Your task to perform on an android device: Open calendar and show me the third week of next month Image 0: 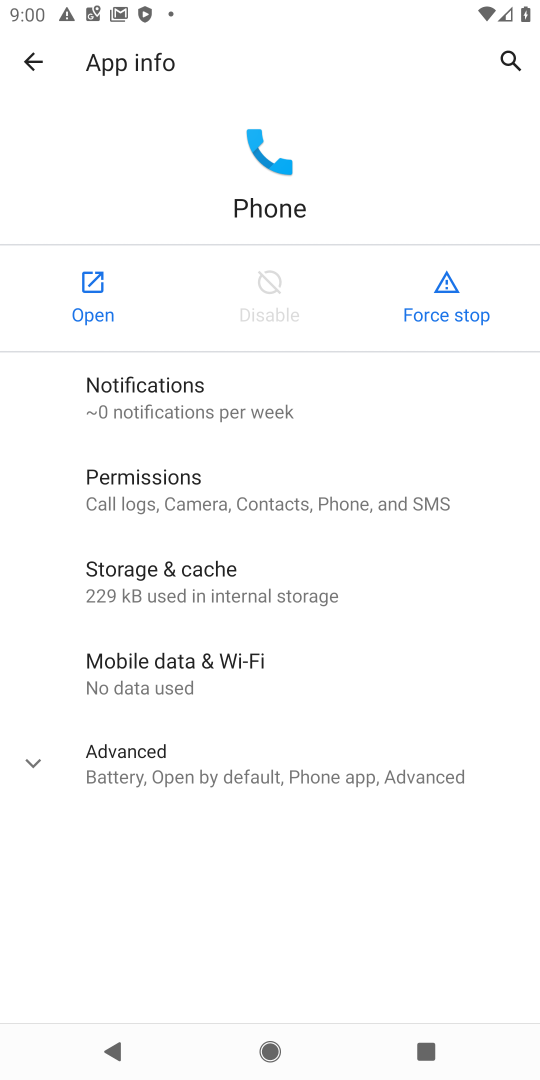
Step 0: press home button
Your task to perform on an android device: Open calendar and show me the third week of next month Image 1: 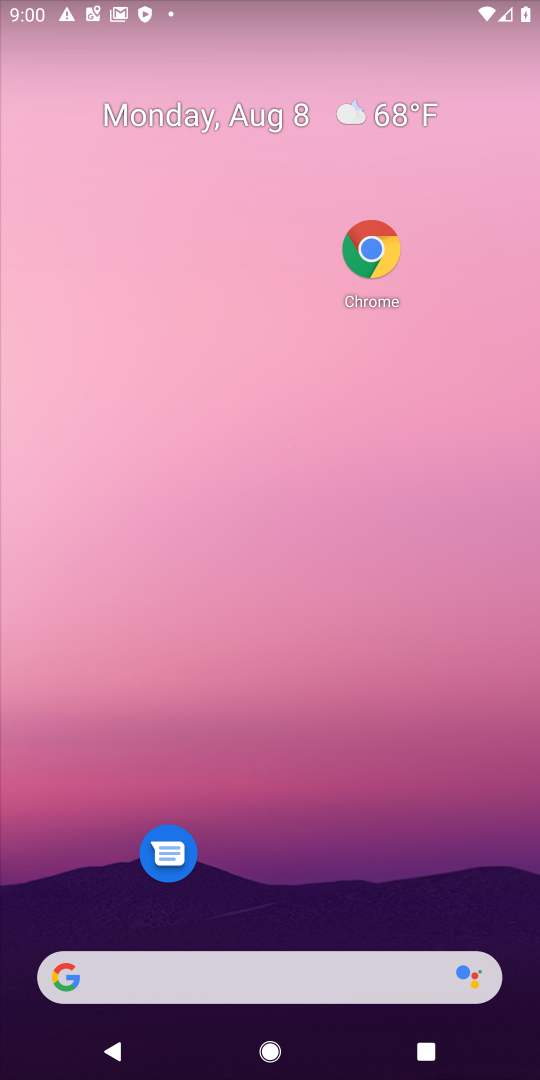
Step 1: drag from (280, 881) to (368, 118)
Your task to perform on an android device: Open calendar and show me the third week of next month Image 2: 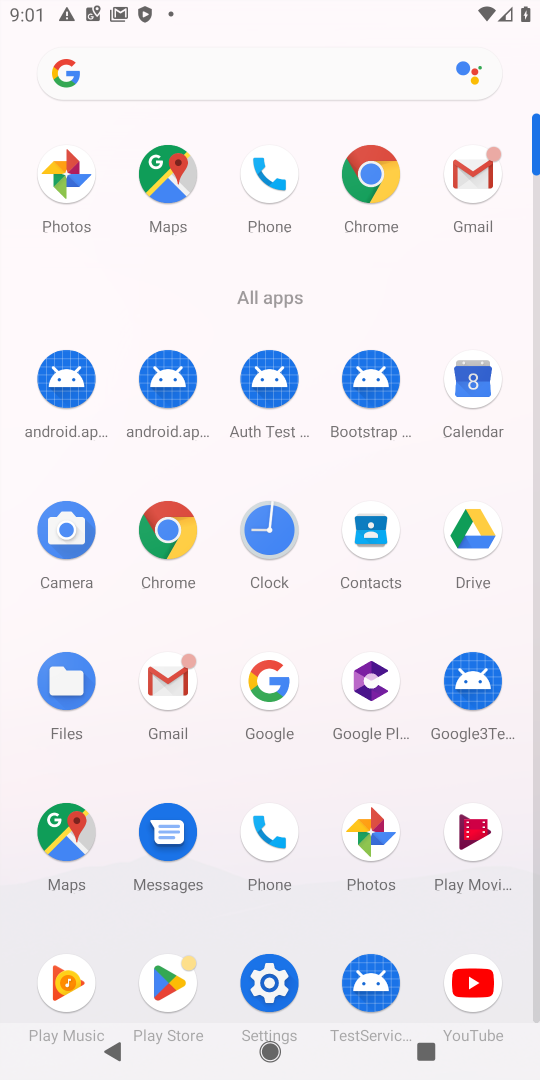
Step 2: click (458, 392)
Your task to perform on an android device: Open calendar and show me the third week of next month Image 3: 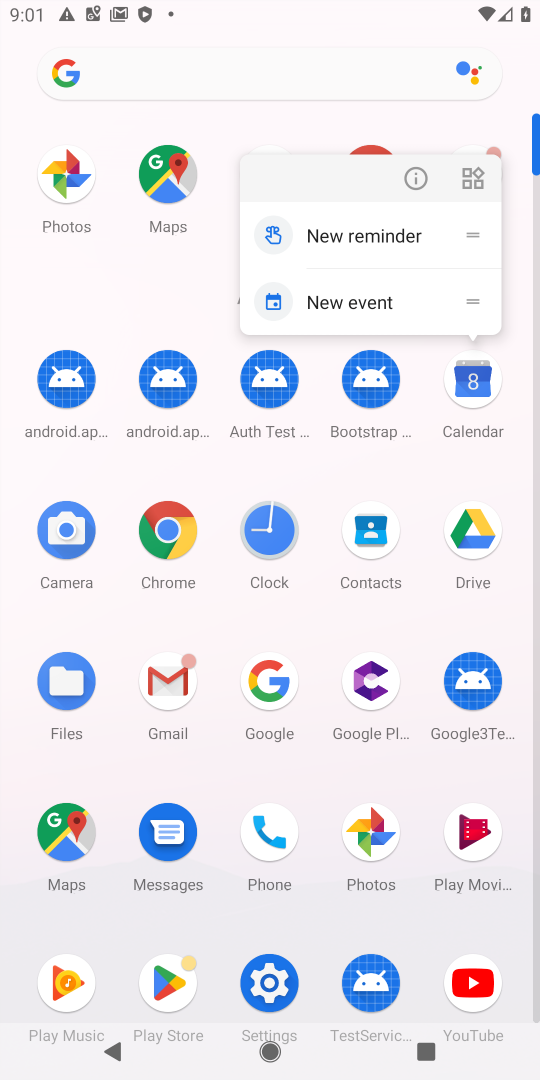
Step 3: click (458, 387)
Your task to perform on an android device: Open calendar and show me the third week of next month Image 4: 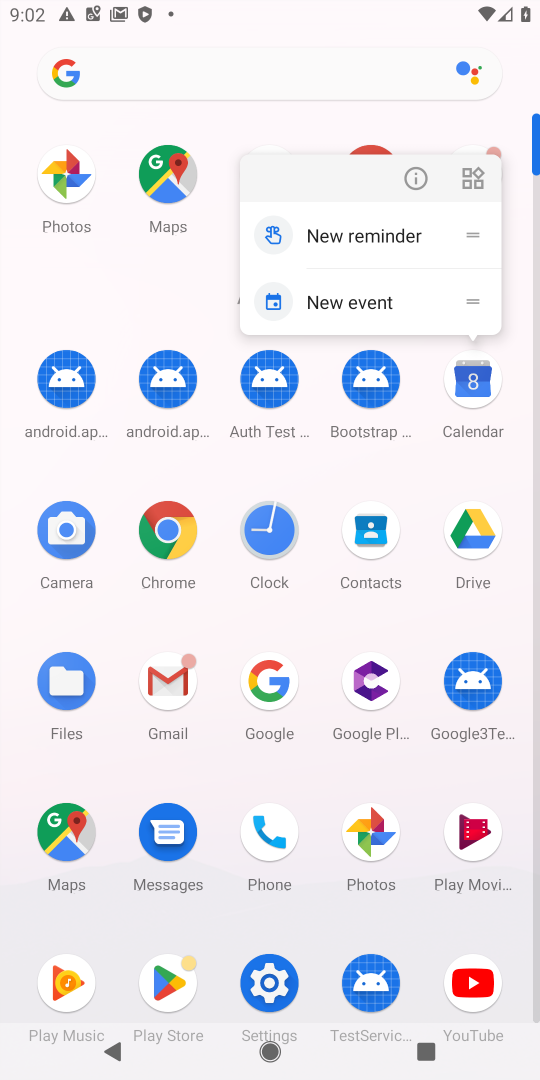
Step 4: click (458, 387)
Your task to perform on an android device: Open calendar and show me the third week of next month Image 5: 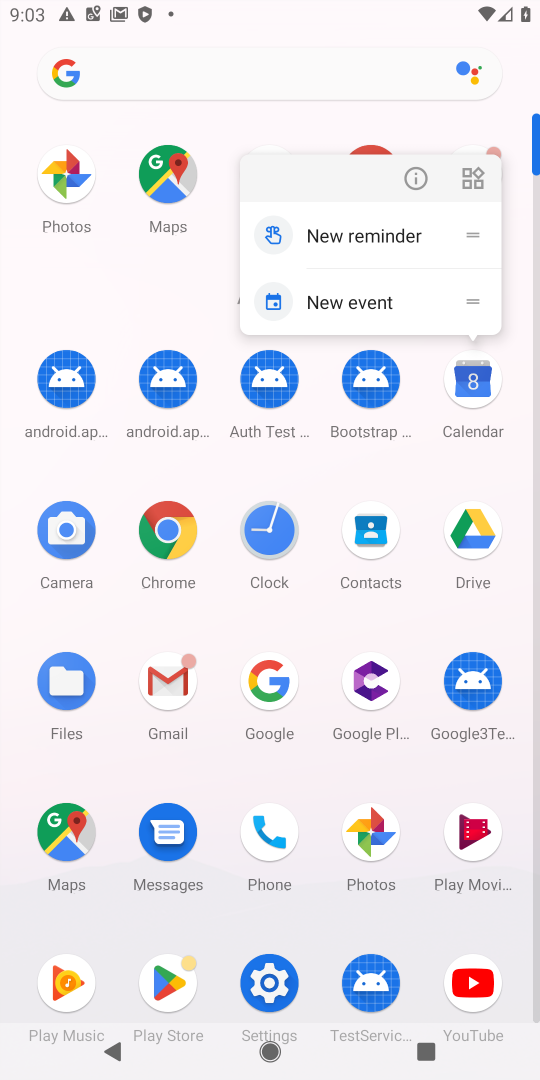
Step 5: click (483, 372)
Your task to perform on an android device: Open calendar and show me the third week of next month Image 6: 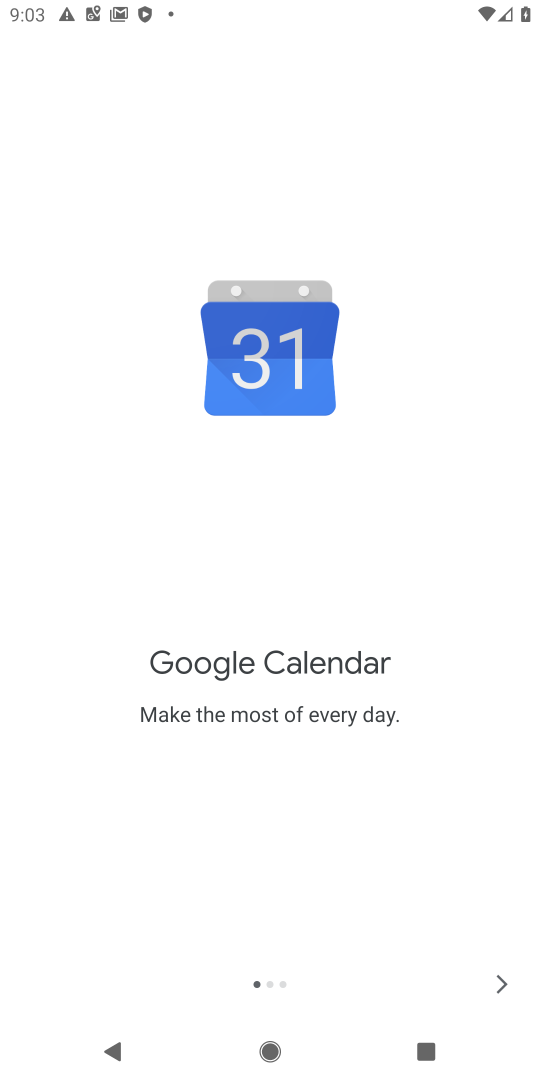
Step 6: click (505, 987)
Your task to perform on an android device: Open calendar and show me the third week of next month Image 7: 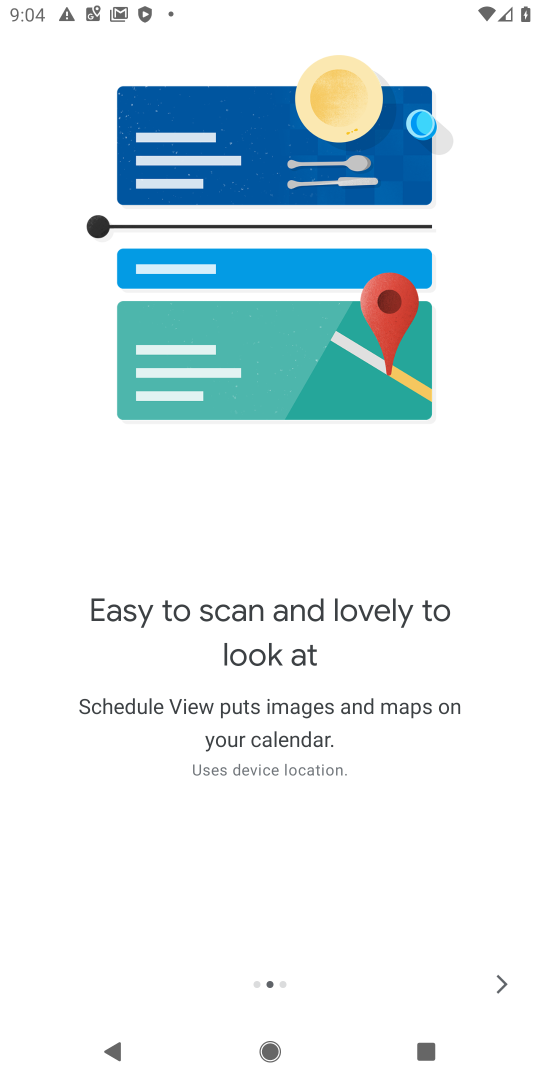
Step 7: click (514, 989)
Your task to perform on an android device: Open calendar and show me the third week of next month Image 8: 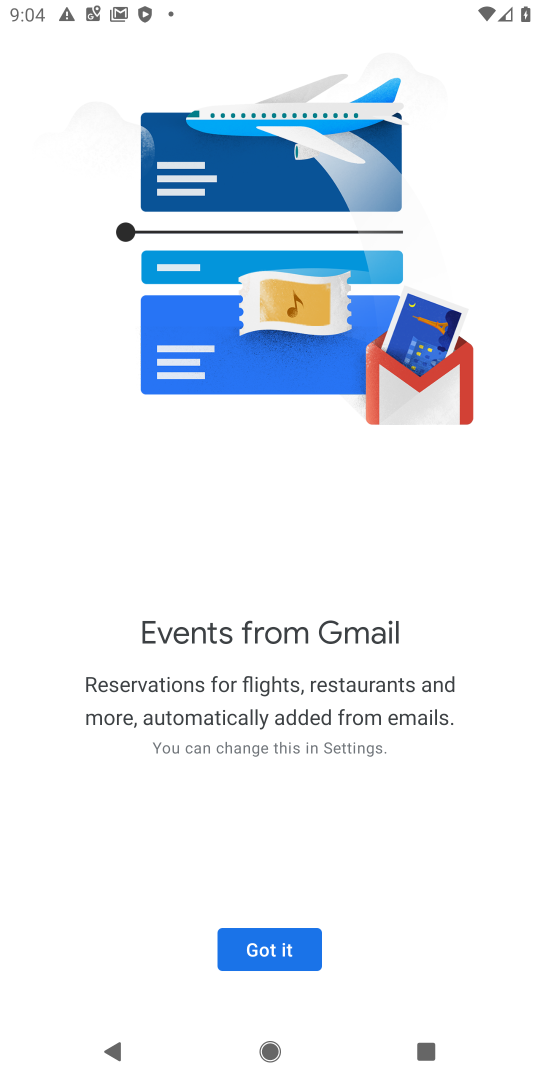
Step 8: click (260, 961)
Your task to perform on an android device: Open calendar and show me the third week of next month Image 9: 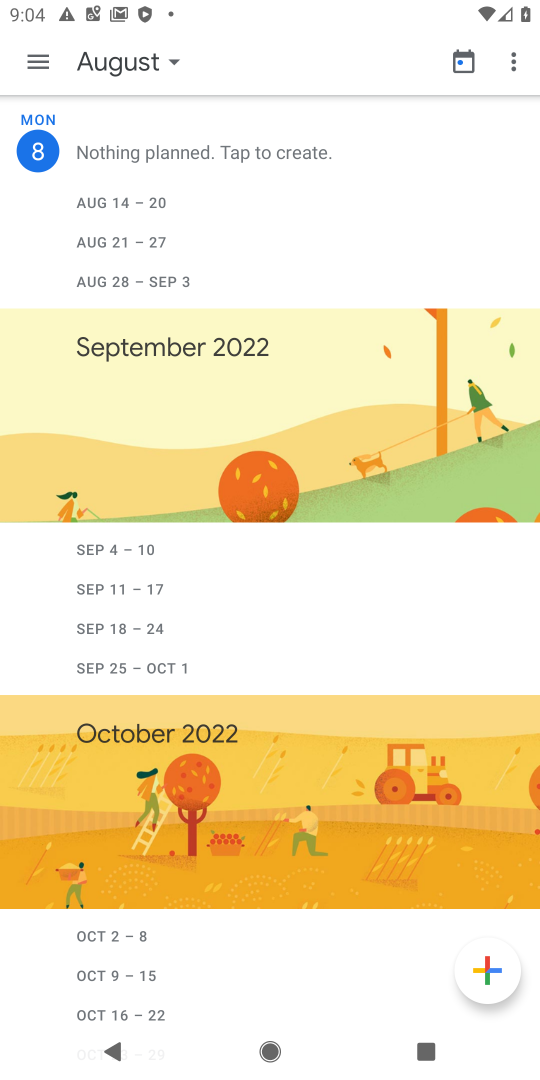
Step 9: click (139, 66)
Your task to perform on an android device: Open calendar and show me the third week of next month Image 10: 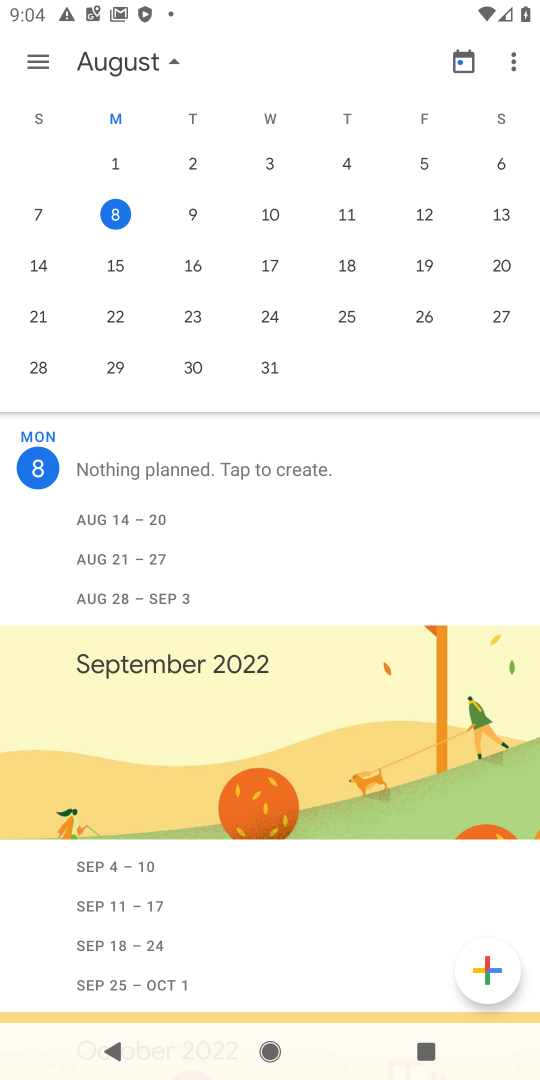
Step 10: click (200, 228)
Your task to perform on an android device: Open calendar and show me the third week of next month Image 11: 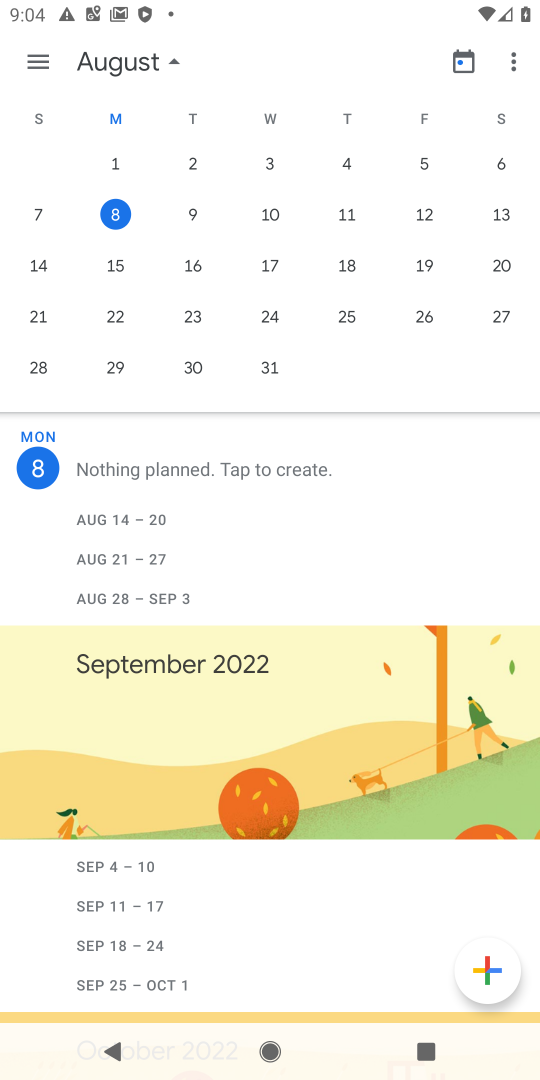
Step 11: click (197, 219)
Your task to perform on an android device: Open calendar and show me the third week of next month Image 12: 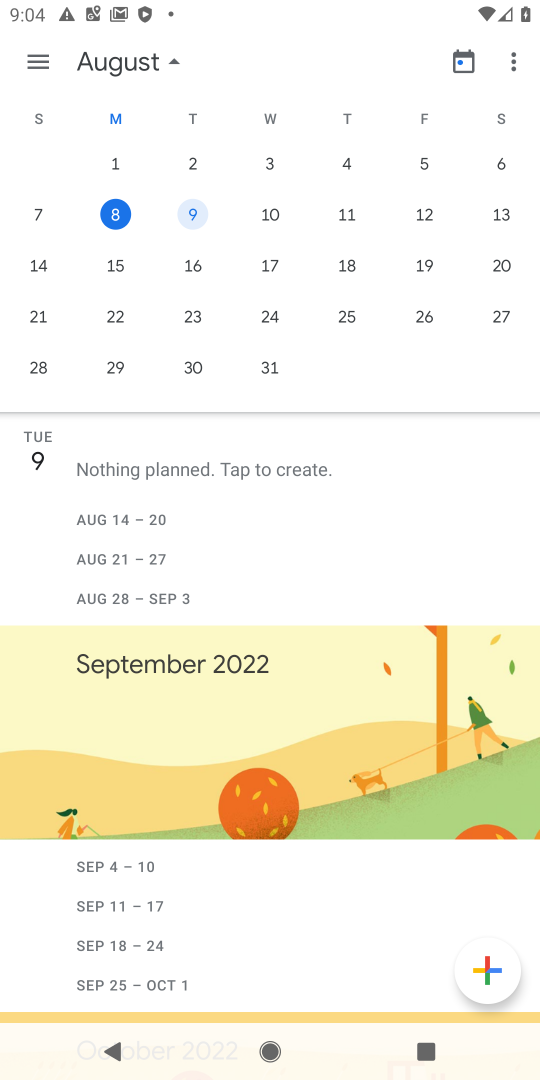
Step 12: task complete